Your task to perform on an android device: Search for floor lamps on article.com Image 0: 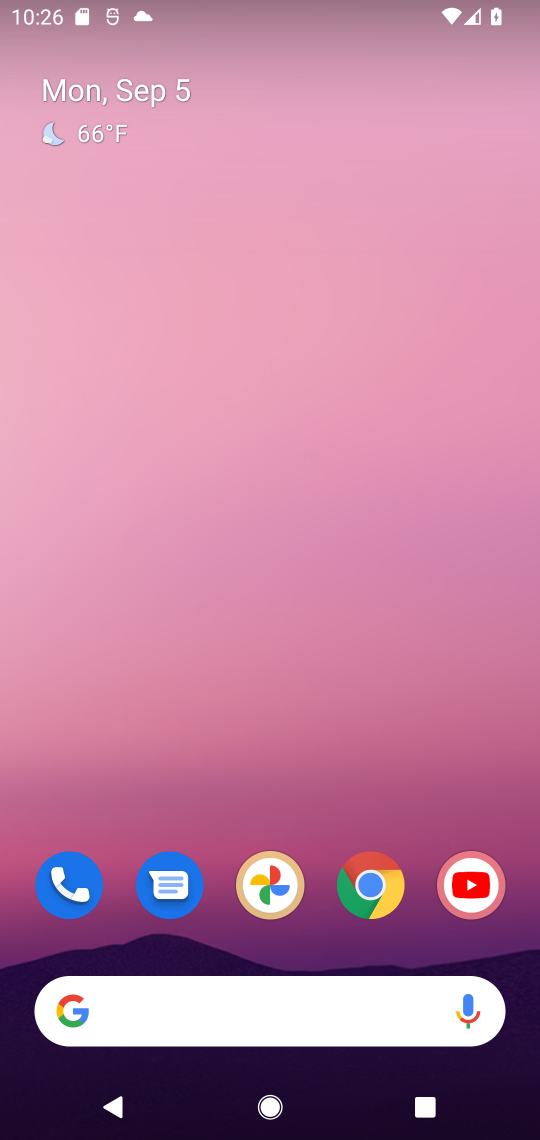
Step 0: drag from (282, 750) to (276, 143)
Your task to perform on an android device: Search for floor lamps on article.com Image 1: 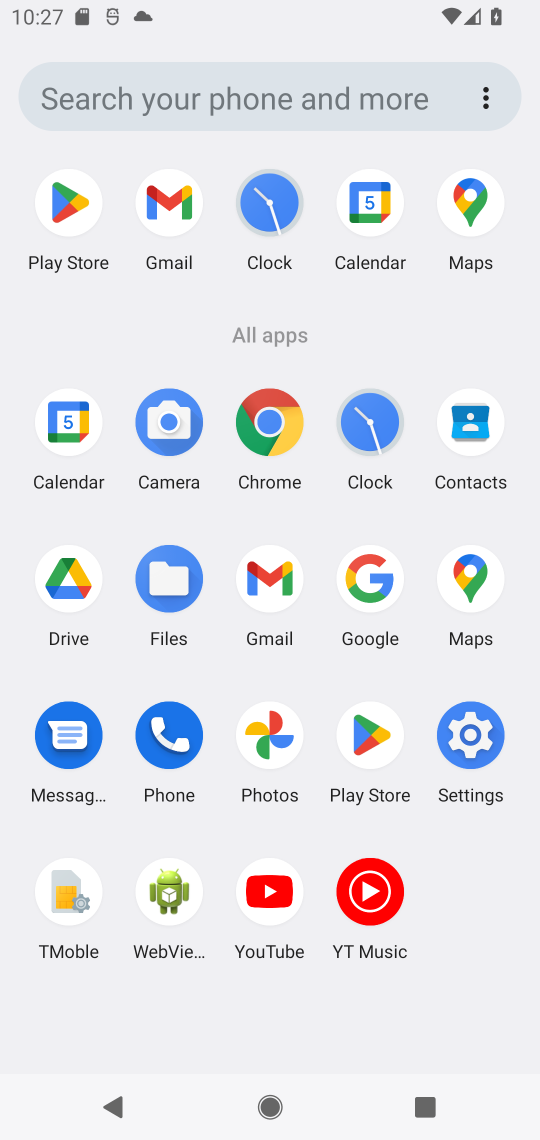
Step 1: click (370, 582)
Your task to perform on an android device: Search for floor lamps on article.com Image 2: 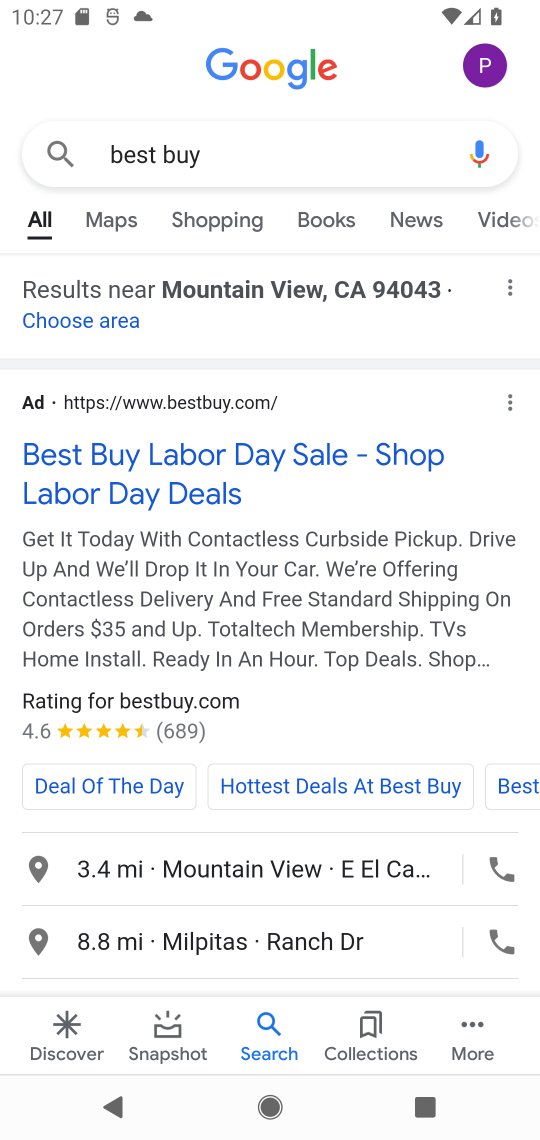
Step 2: click (300, 165)
Your task to perform on an android device: Search for floor lamps on article.com Image 3: 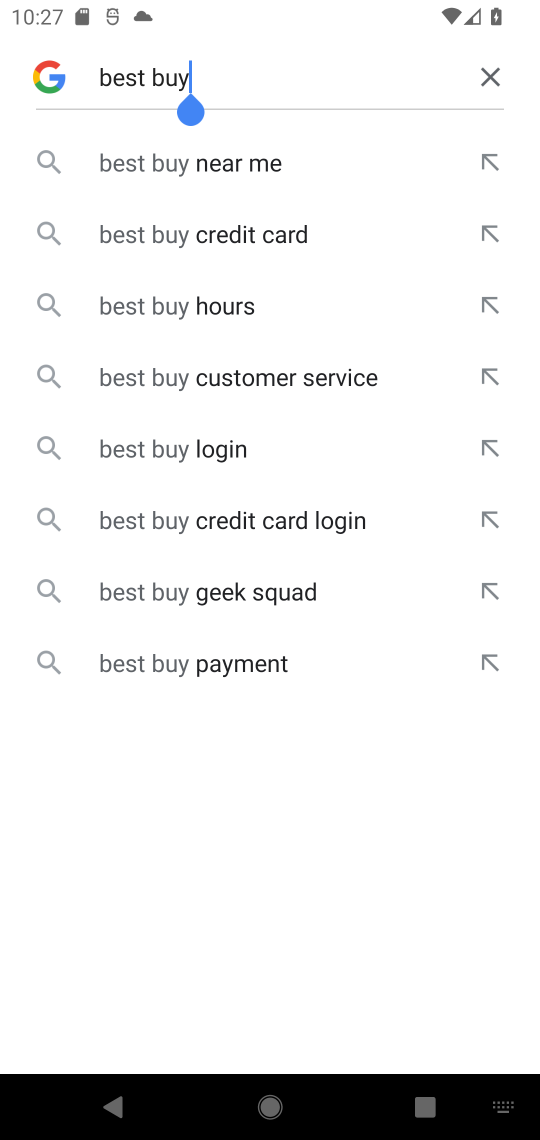
Step 3: click (484, 78)
Your task to perform on an android device: Search for floor lamps on article.com Image 4: 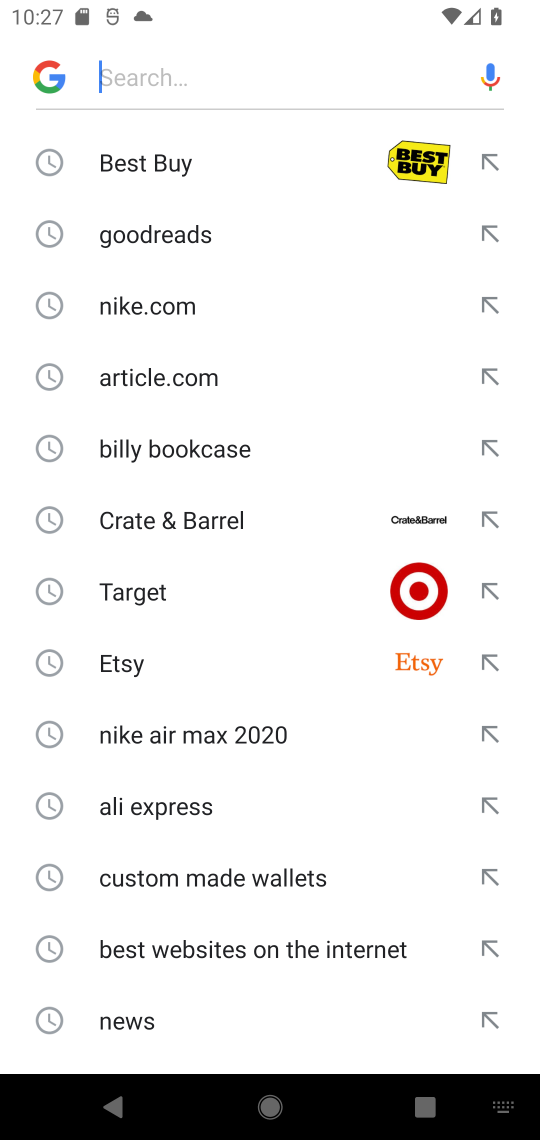
Step 4: type "article.com"
Your task to perform on an android device: Search for floor lamps on article.com Image 5: 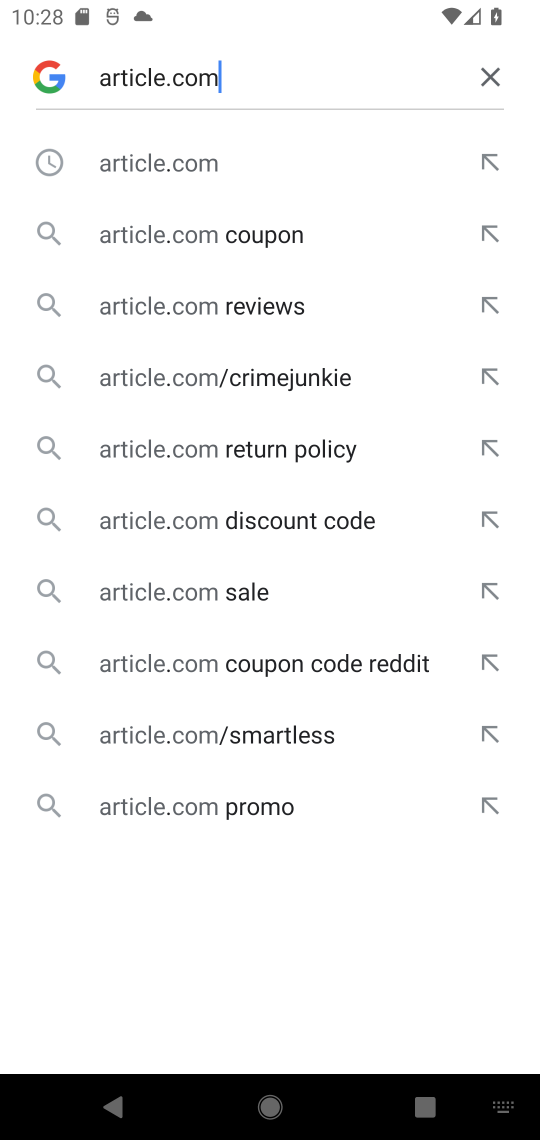
Step 5: click (117, 167)
Your task to perform on an android device: Search for floor lamps on article.com Image 6: 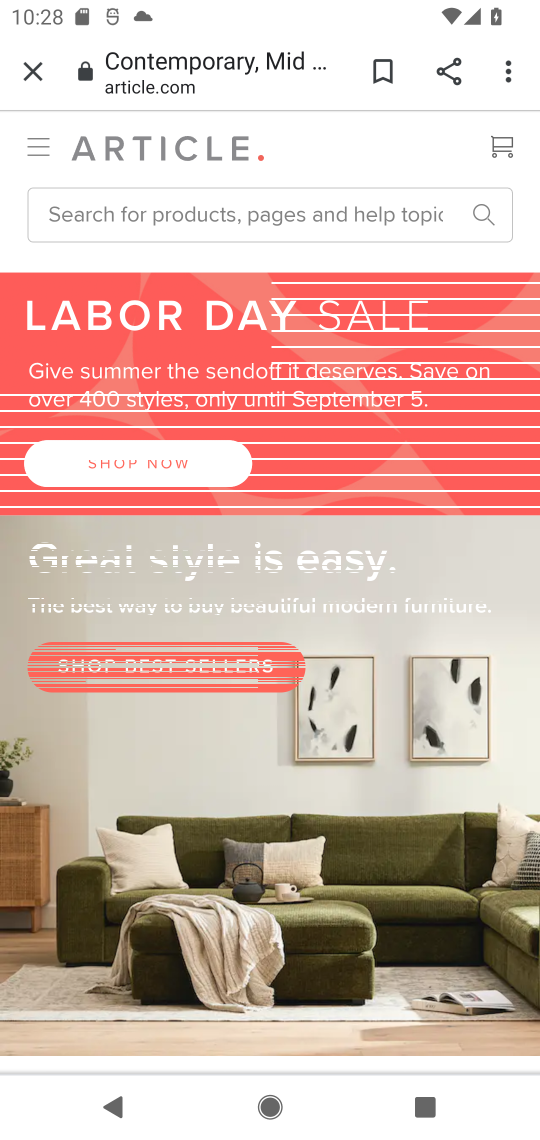
Step 6: task complete